Your task to perform on an android device: Do I have any events today? Image 0: 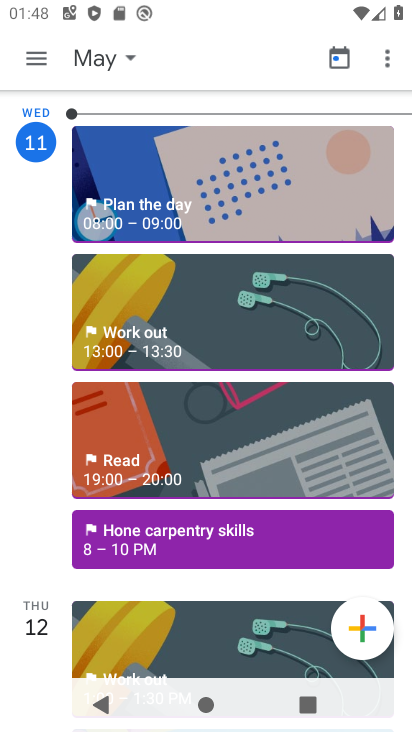
Step 0: drag from (217, 601) to (278, 269)
Your task to perform on an android device: Do I have any events today? Image 1: 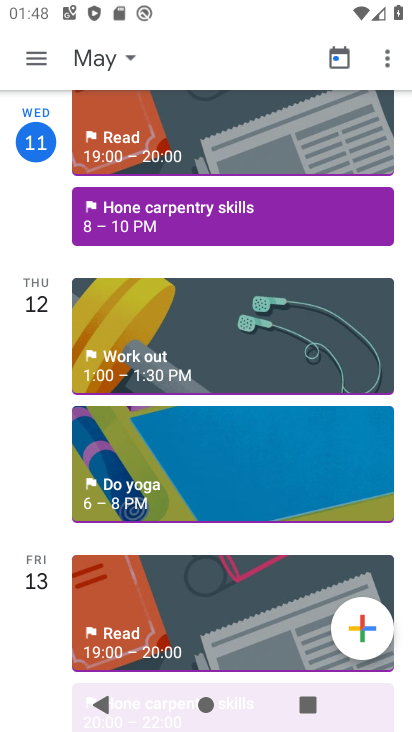
Step 1: task complete